Your task to perform on an android device: Open Youtube and go to "Your channel" Image 0: 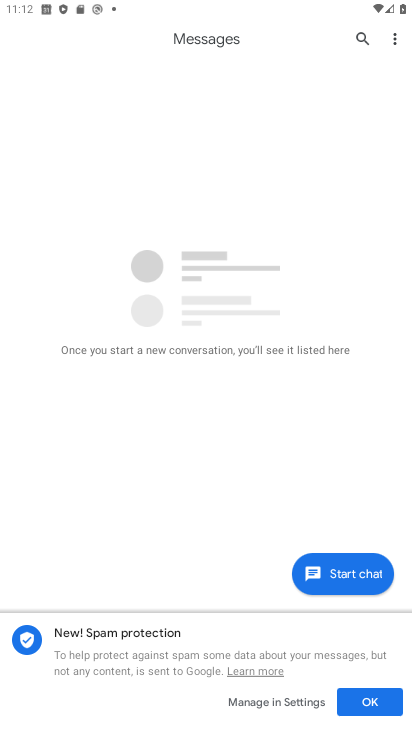
Step 0: press home button
Your task to perform on an android device: Open Youtube and go to "Your channel" Image 1: 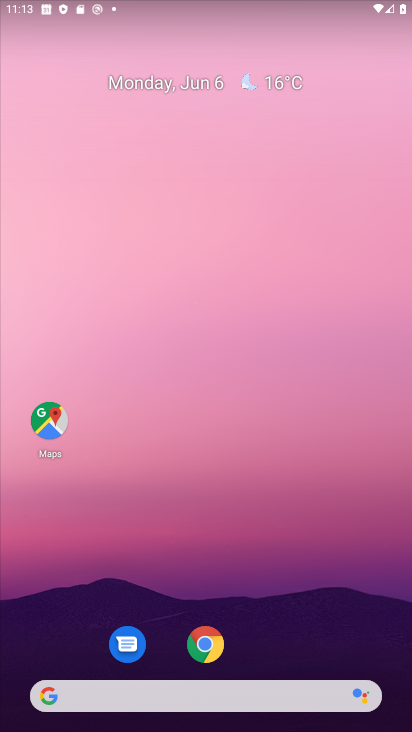
Step 1: drag from (281, 623) to (225, 218)
Your task to perform on an android device: Open Youtube and go to "Your channel" Image 2: 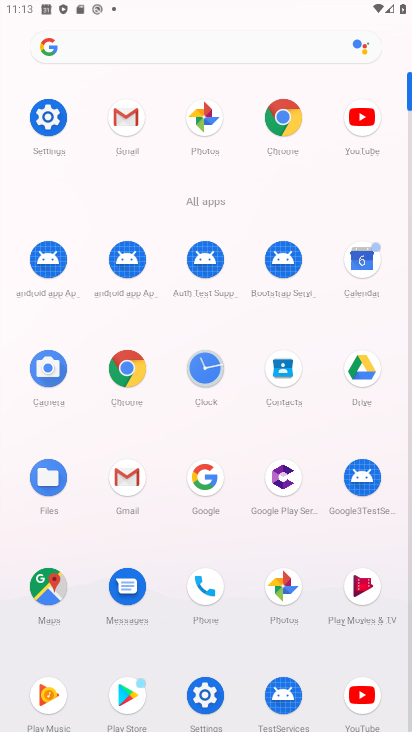
Step 2: click (357, 120)
Your task to perform on an android device: Open Youtube and go to "Your channel" Image 3: 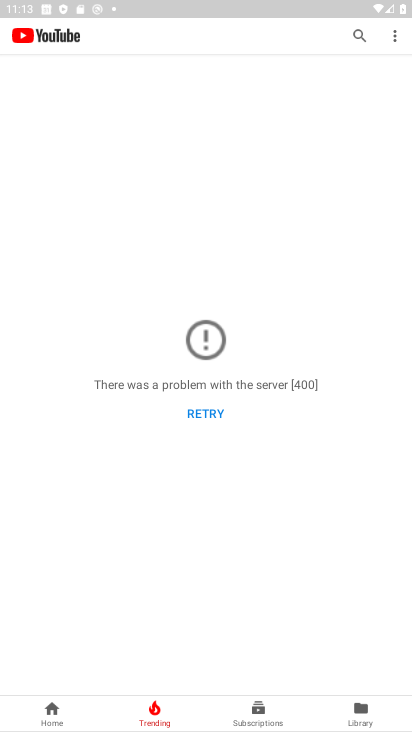
Step 3: task complete